Your task to perform on an android device: Turn off the flashlight Image 0: 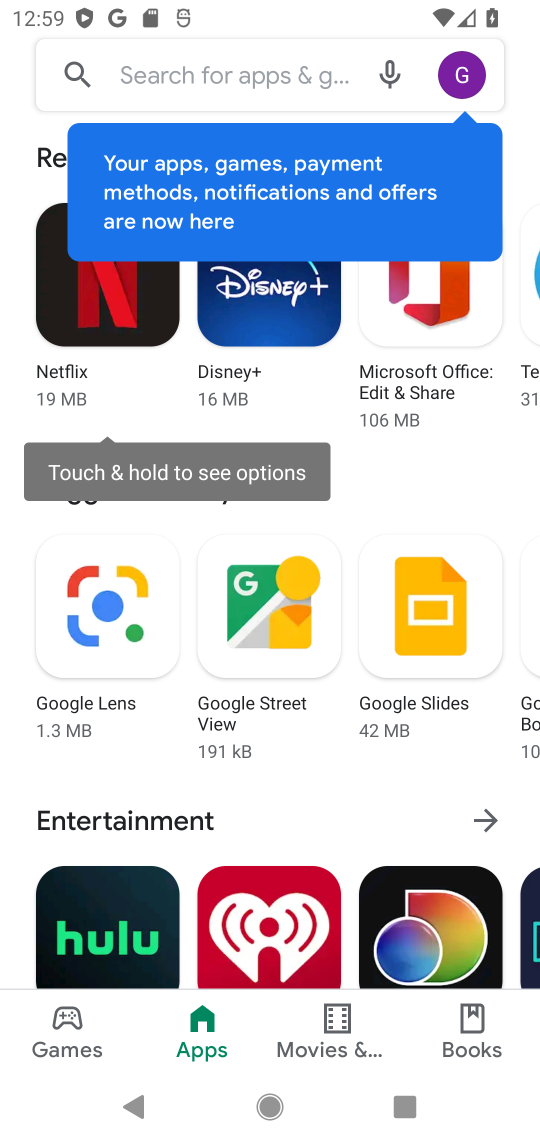
Step 0: press home button
Your task to perform on an android device: Turn off the flashlight Image 1: 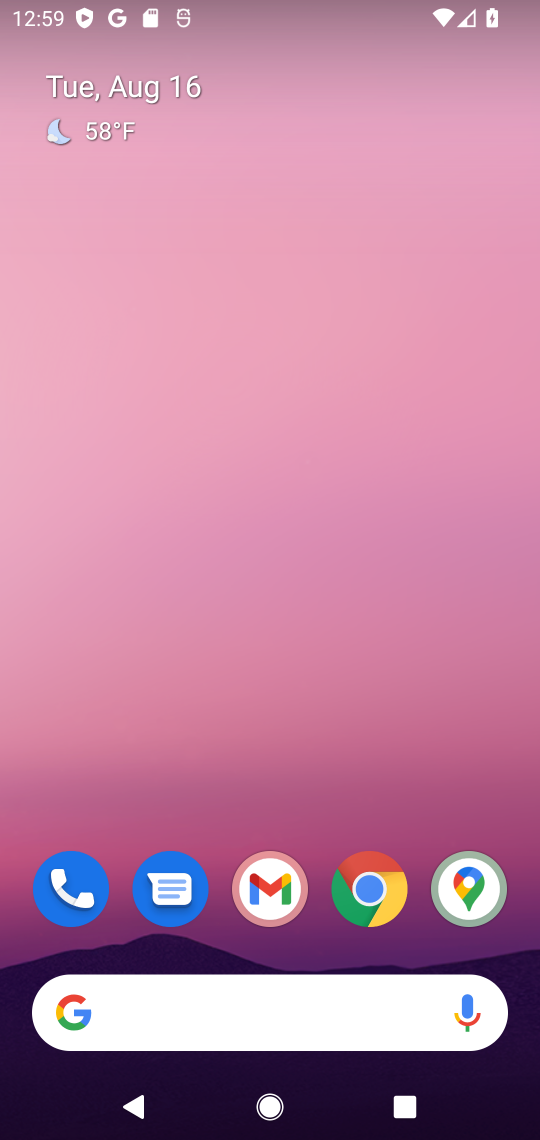
Step 1: drag from (288, 756) to (452, 0)
Your task to perform on an android device: Turn off the flashlight Image 2: 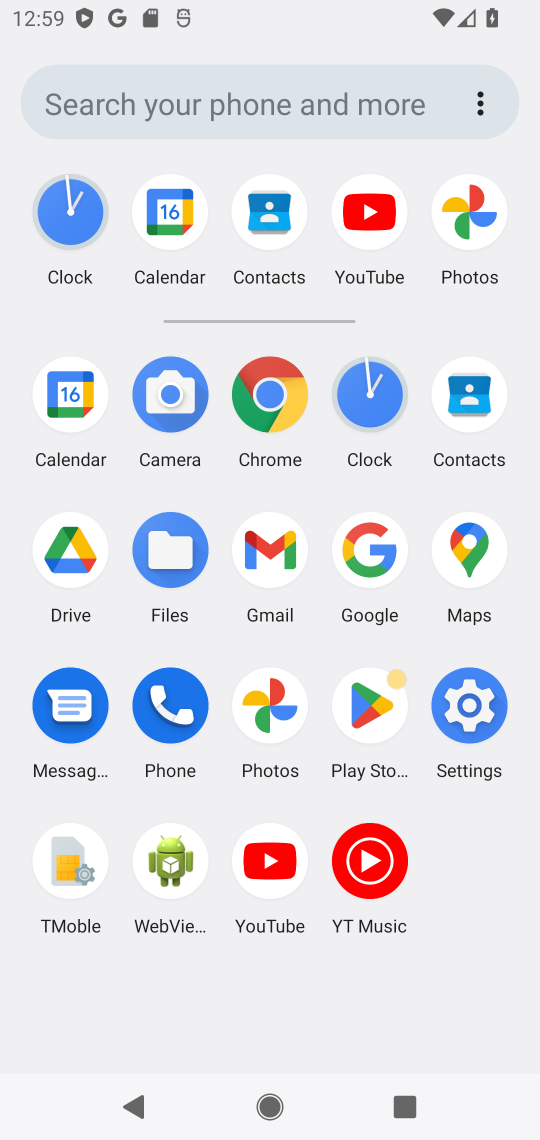
Step 2: click (481, 710)
Your task to perform on an android device: Turn off the flashlight Image 3: 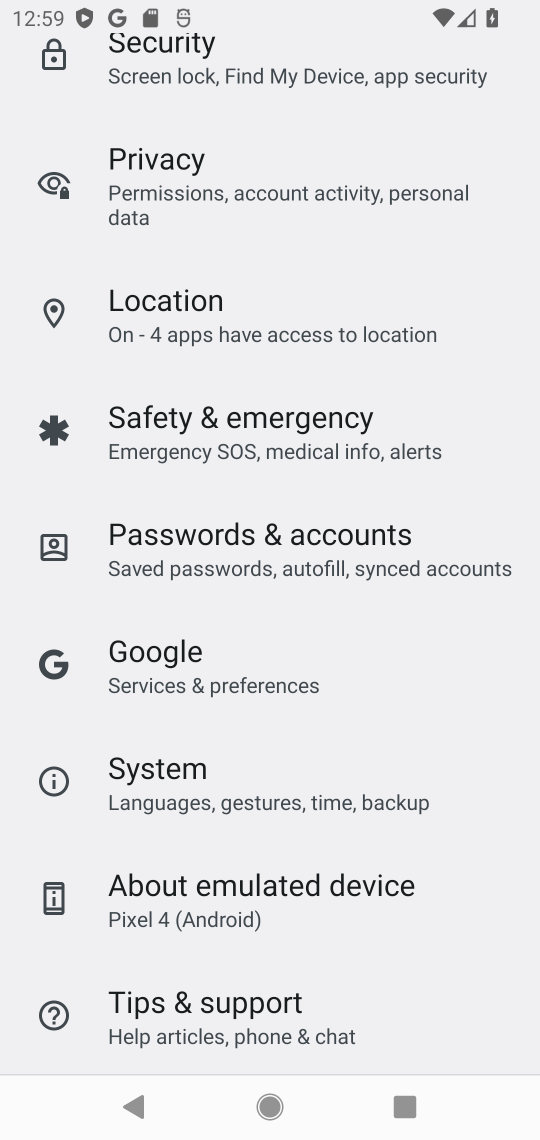
Step 3: task complete